Your task to perform on an android device: Open Google Maps Image 0: 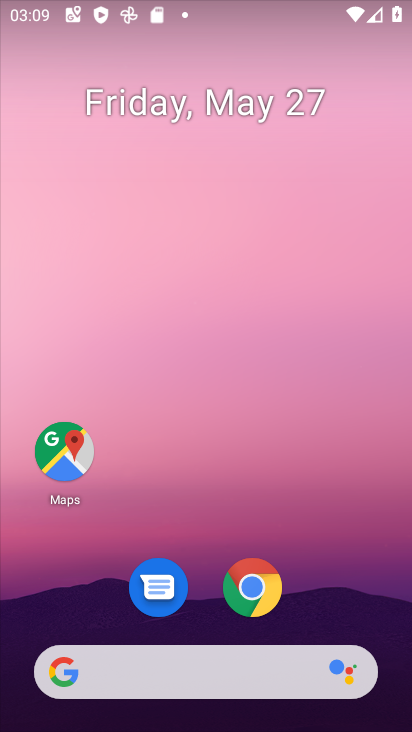
Step 0: press home button
Your task to perform on an android device: Open Google Maps Image 1: 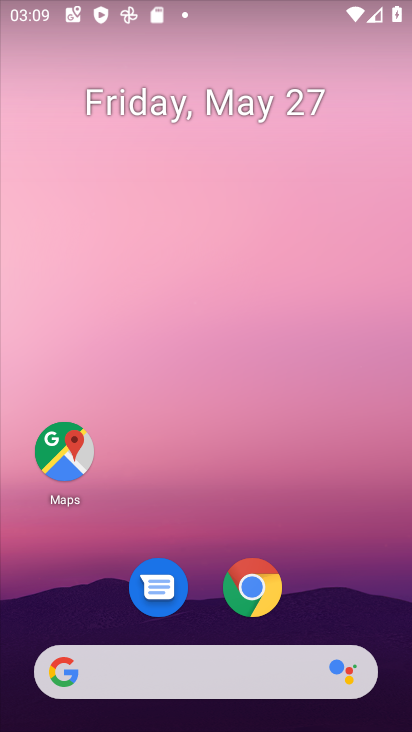
Step 1: click (63, 426)
Your task to perform on an android device: Open Google Maps Image 2: 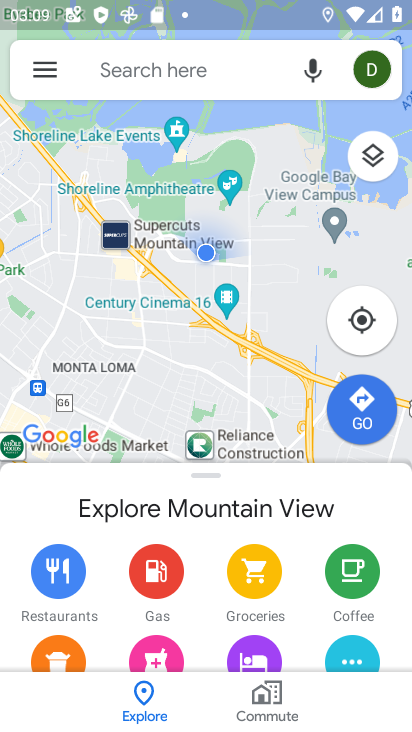
Step 2: task complete